Your task to perform on an android device: Check the news Image 0: 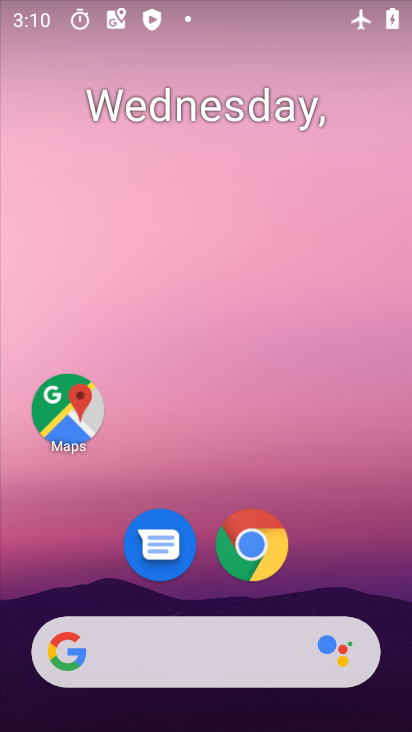
Step 0: drag from (330, 589) to (247, 134)
Your task to perform on an android device: Check the news Image 1: 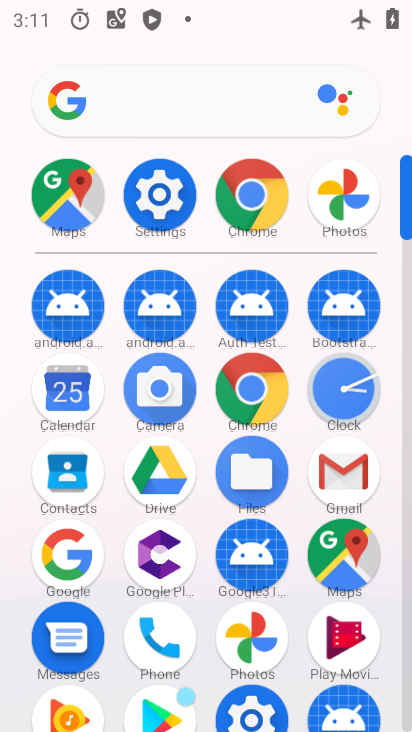
Step 1: click (268, 410)
Your task to perform on an android device: Check the news Image 2: 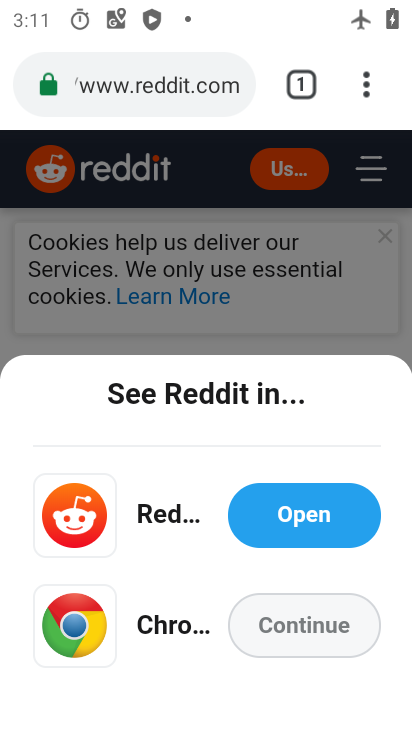
Step 2: click (176, 81)
Your task to perform on an android device: Check the news Image 3: 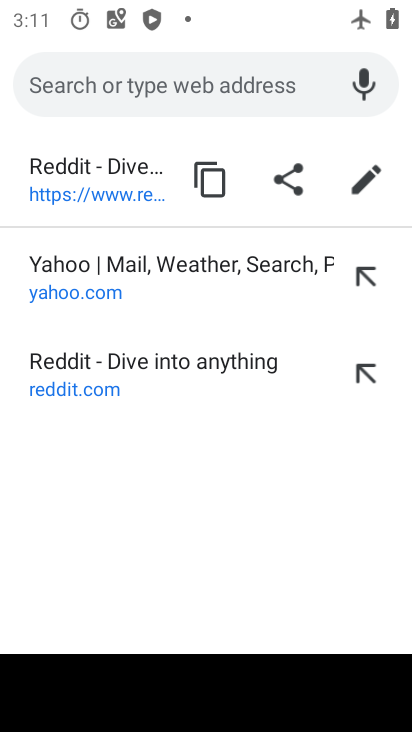
Step 3: type "check the news "
Your task to perform on an android device: Check the news Image 4: 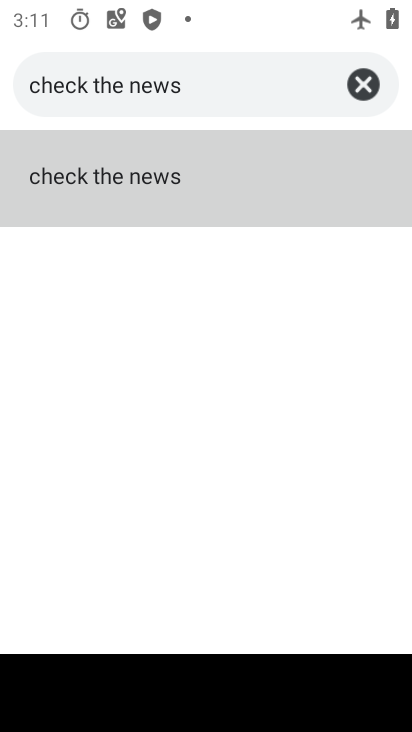
Step 4: click (34, 180)
Your task to perform on an android device: Check the news Image 5: 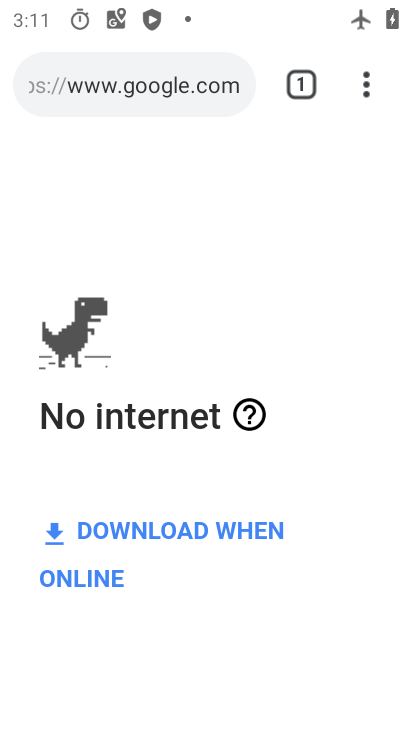
Step 5: task complete